Your task to perform on an android device: Show me the alarms in the clock app Image 0: 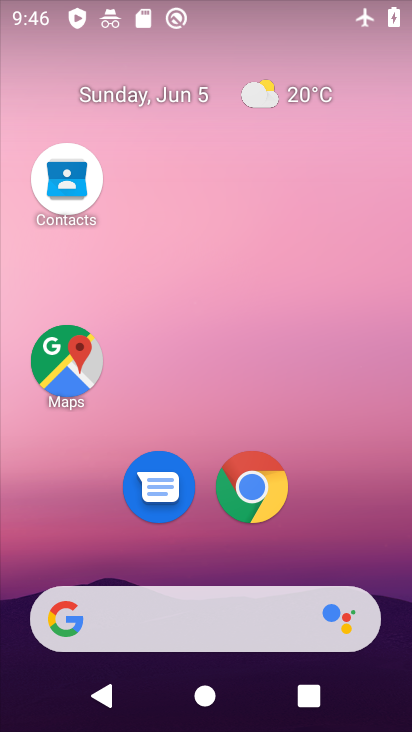
Step 0: drag from (215, 556) to (171, 13)
Your task to perform on an android device: Show me the alarms in the clock app Image 1: 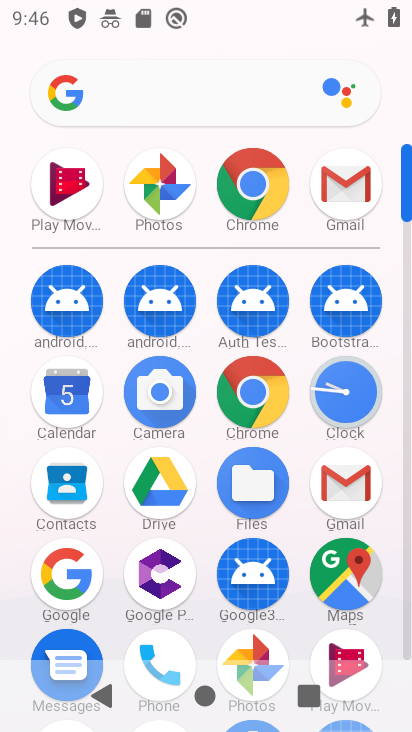
Step 1: drag from (266, 484) to (296, 193)
Your task to perform on an android device: Show me the alarms in the clock app Image 2: 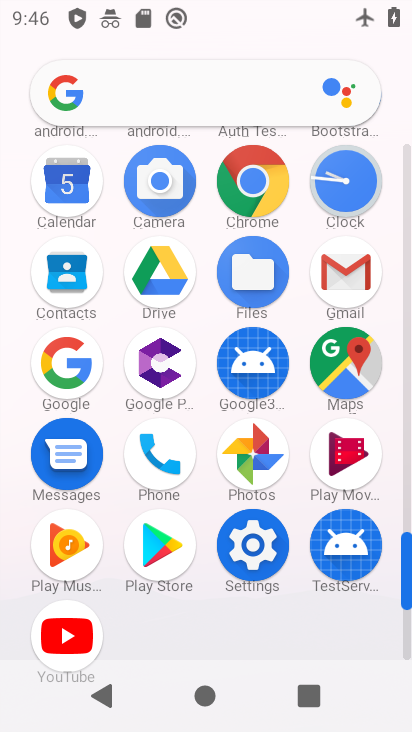
Step 2: drag from (240, 383) to (204, 582)
Your task to perform on an android device: Show me the alarms in the clock app Image 3: 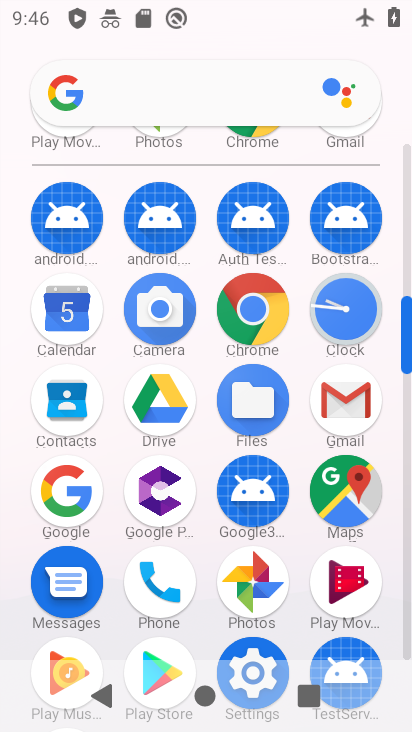
Step 3: click (353, 320)
Your task to perform on an android device: Show me the alarms in the clock app Image 4: 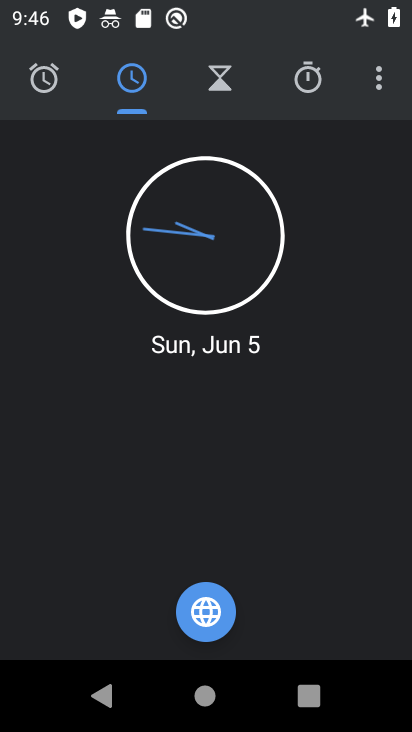
Step 4: click (52, 93)
Your task to perform on an android device: Show me the alarms in the clock app Image 5: 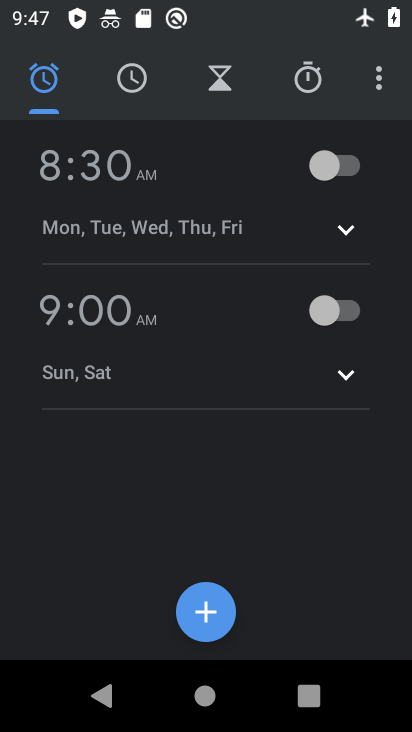
Step 5: task complete